Your task to perform on an android device: open sync settings in chrome Image 0: 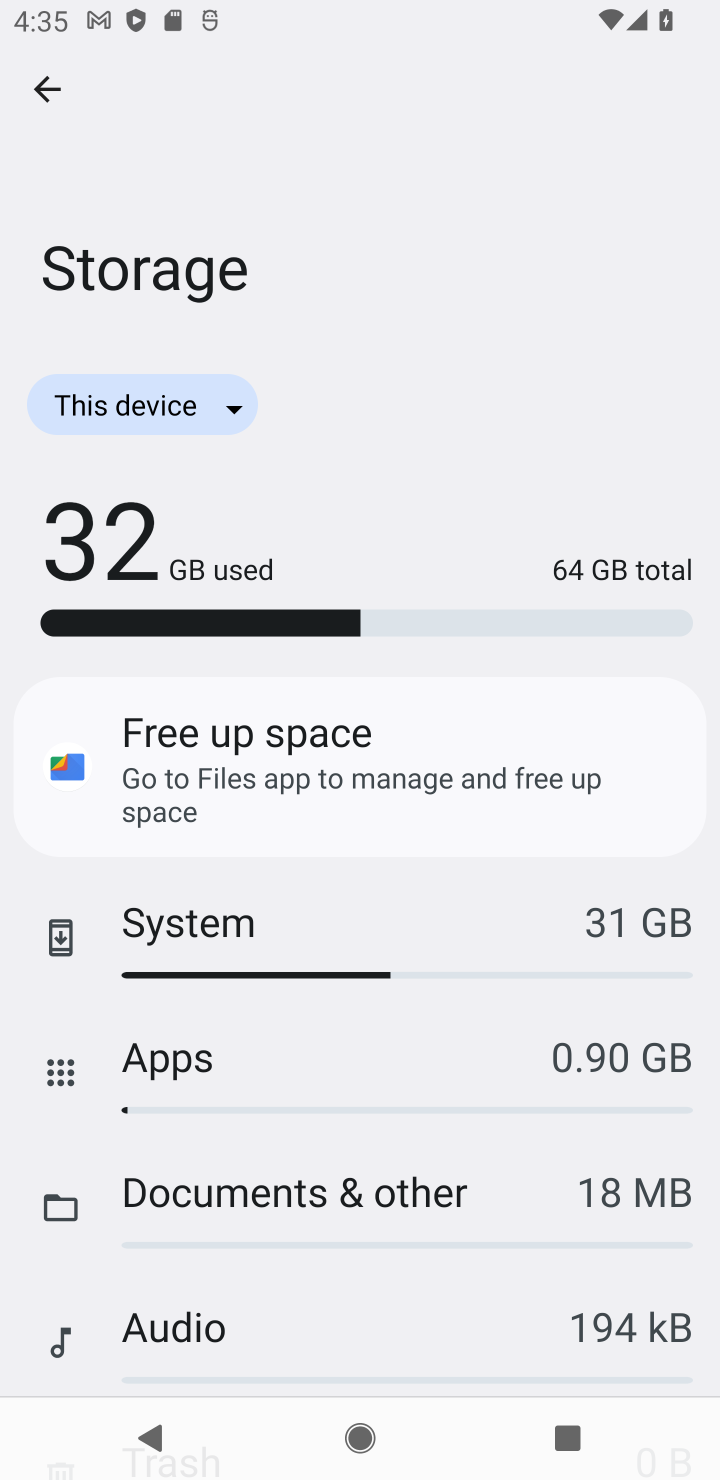
Step 0: task complete